Your task to perform on an android device: Open CNN.com Image 0: 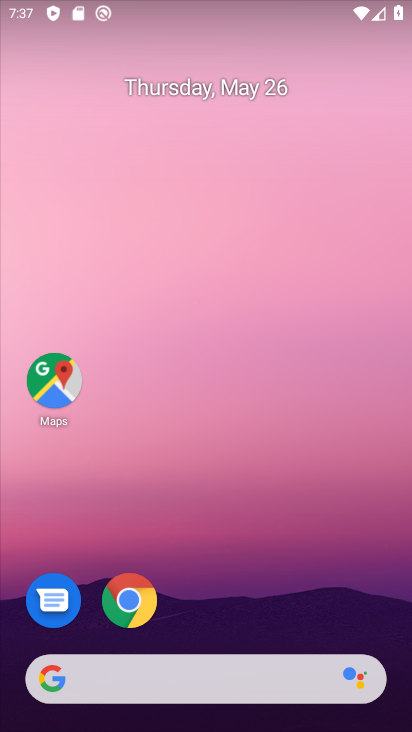
Step 0: drag from (208, 696) to (237, 238)
Your task to perform on an android device: Open CNN.com Image 1: 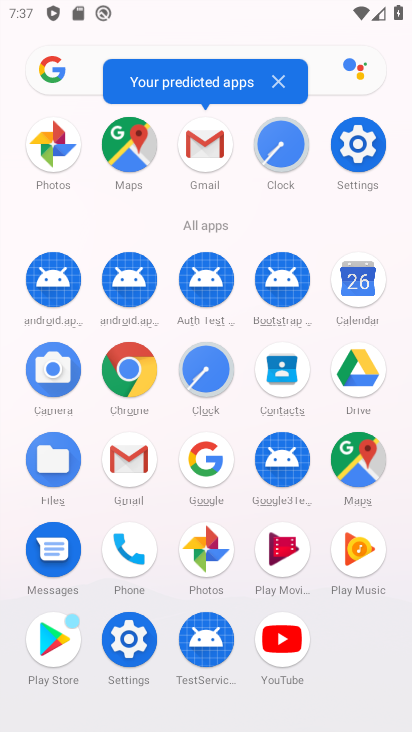
Step 1: click (130, 379)
Your task to perform on an android device: Open CNN.com Image 2: 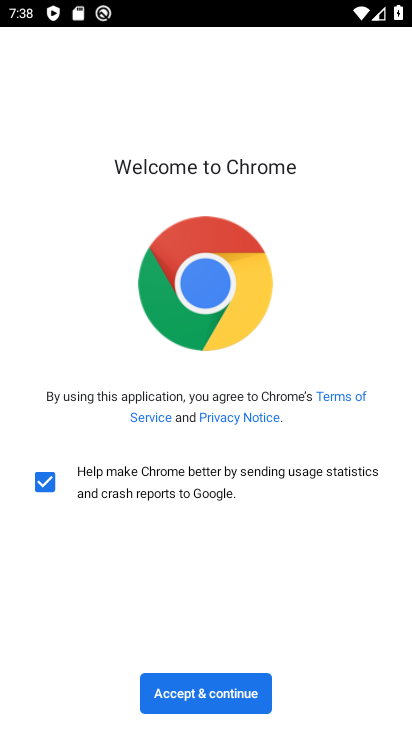
Step 2: click (231, 711)
Your task to perform on an android device: Open CNN.com Image 3: 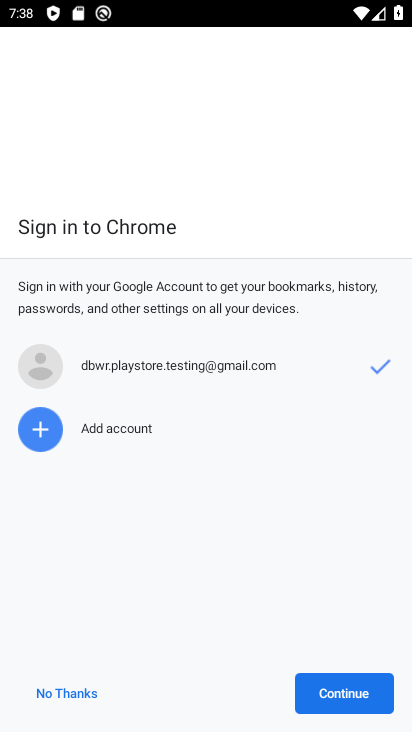
Step 3: click (321, 706)
Your task to perform on an android device: Open CNN.com Image 4: 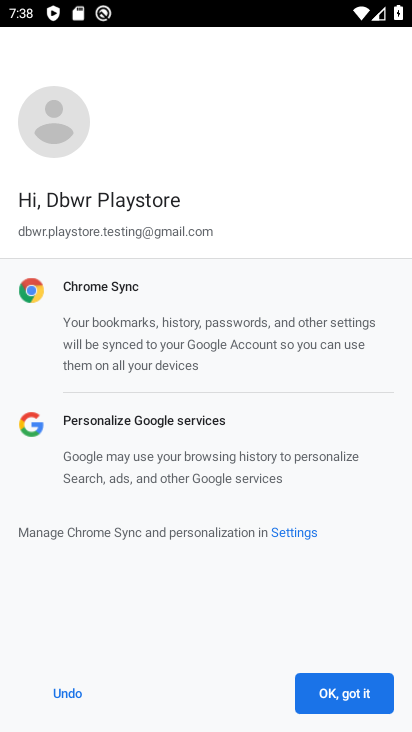
Step 4: click (331, 709)
Your task to perform on an android device: Open CNN.com Image 5: 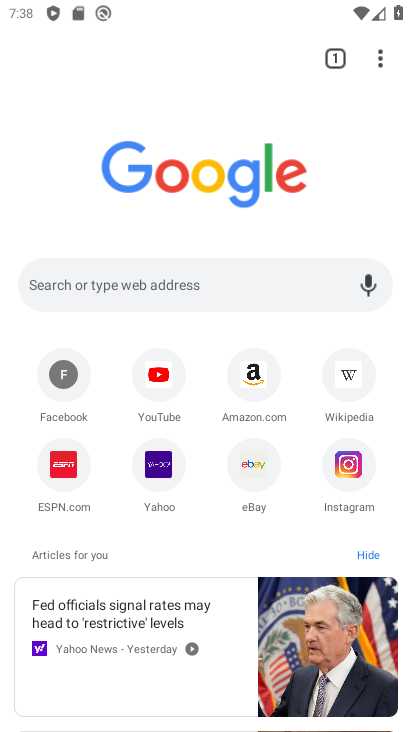
Step 5: click (246, 296)
Your task to perform on an android device: Open CNN.com Image 6: 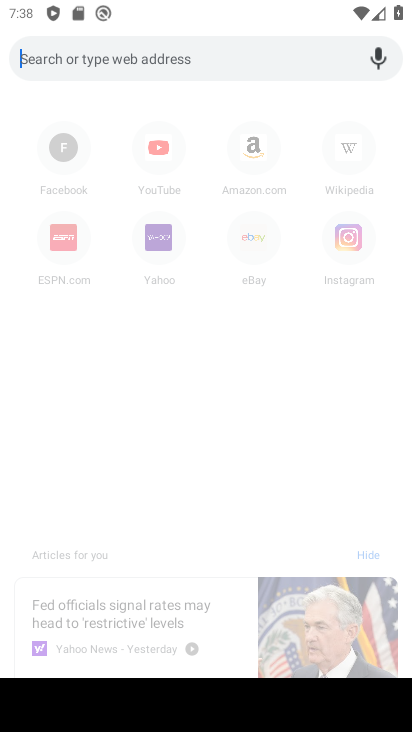
Step 6: type "cnn.com"
Your task to perform on an android device: Open CNN.com Image 7: 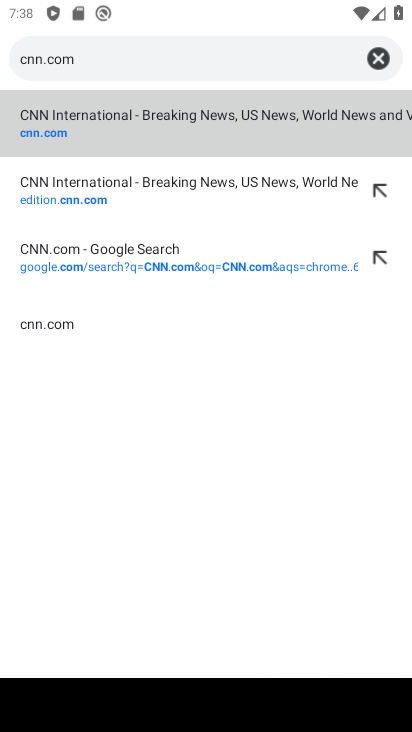
Step 7: click (184, 143)
Your task to perform on an android device: Open CNN.com Image 8: 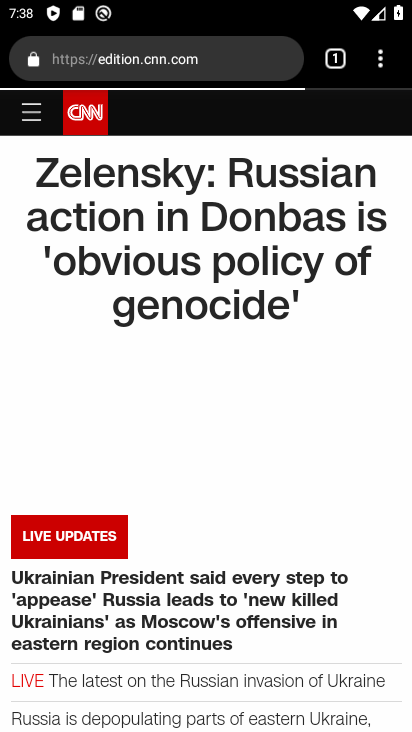
Step 8: task complete